Your task to perform on an android device: Clear all items from cart on walmart. Add usb-a to usb-b to the cart on walmart, then select checkout. Image 0: 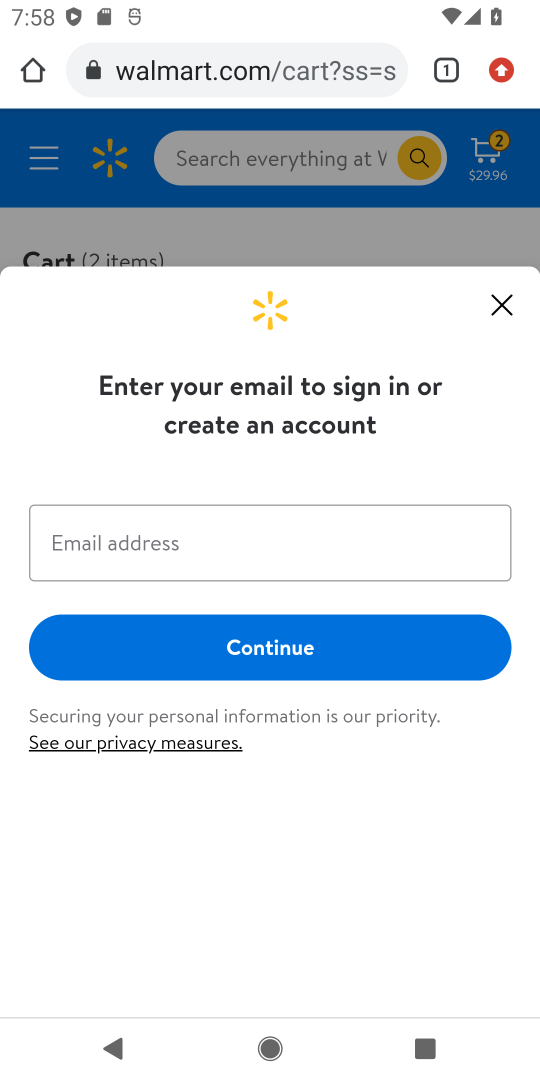
Step 0: press home button
Your task to perform on an android device: Clear all items from cart on walmart. Add usb-a to usb-b to the cart on walmart, then select checkout. Image 1: 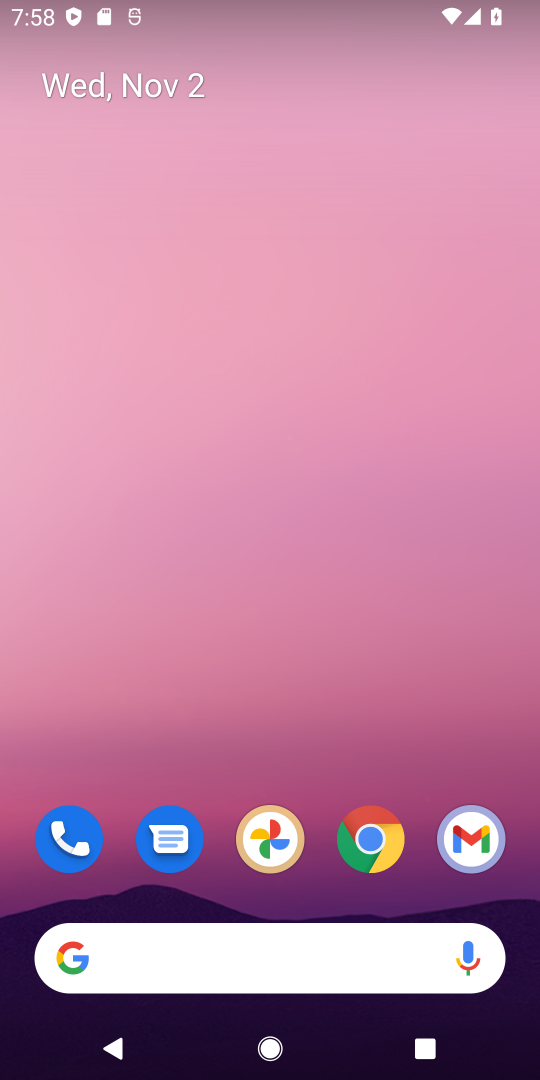
Step 1: click (370, 843)
Your task to perform on an android device: Clear all items from cart on walmart. Add usb-a to usb-b to the cart on walmart, then select checkout. Image 2: 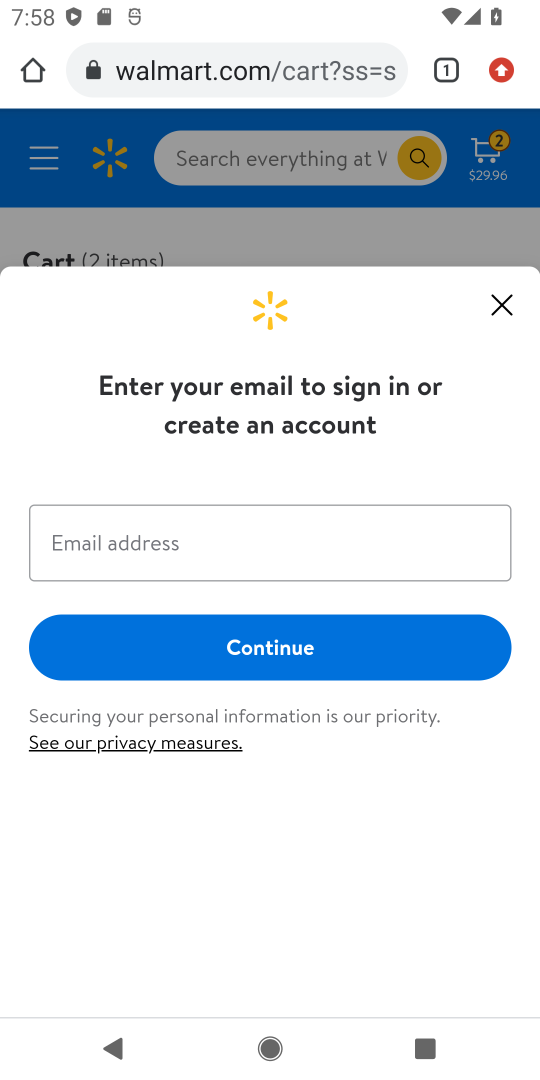
Step 2: click (300, 69)
Your task to perform on an android device: Clear all items from cart on walmart. Add usb-a to usb-b to the cart on walmart, then select checkout. Image 3: 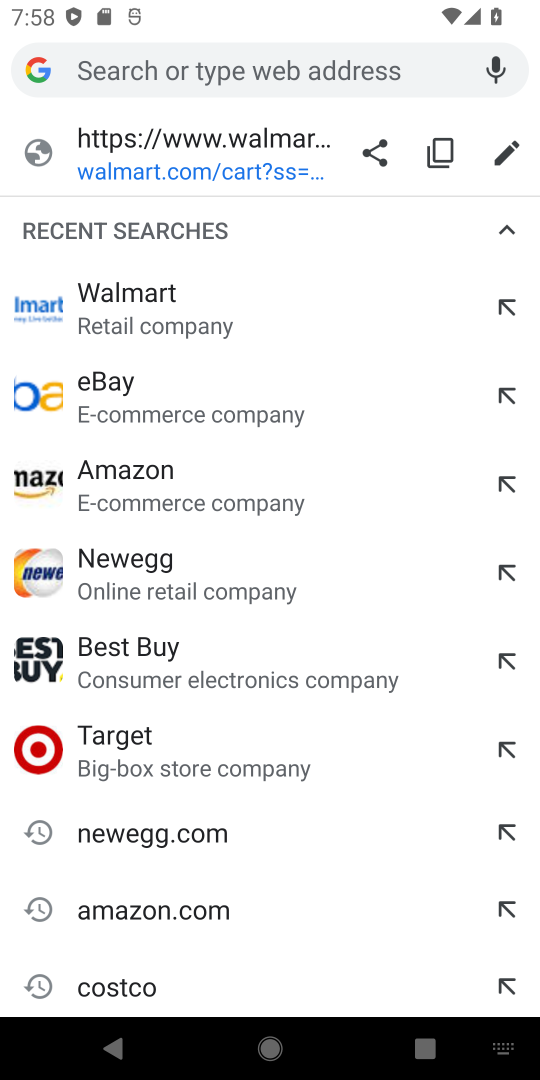
Step 3: type "walmart"
Your task to perform on an android device: Clear all items from cart on walmart. Add usb-a to usb-b to the cart on walmart, then select checkout. Image 4: 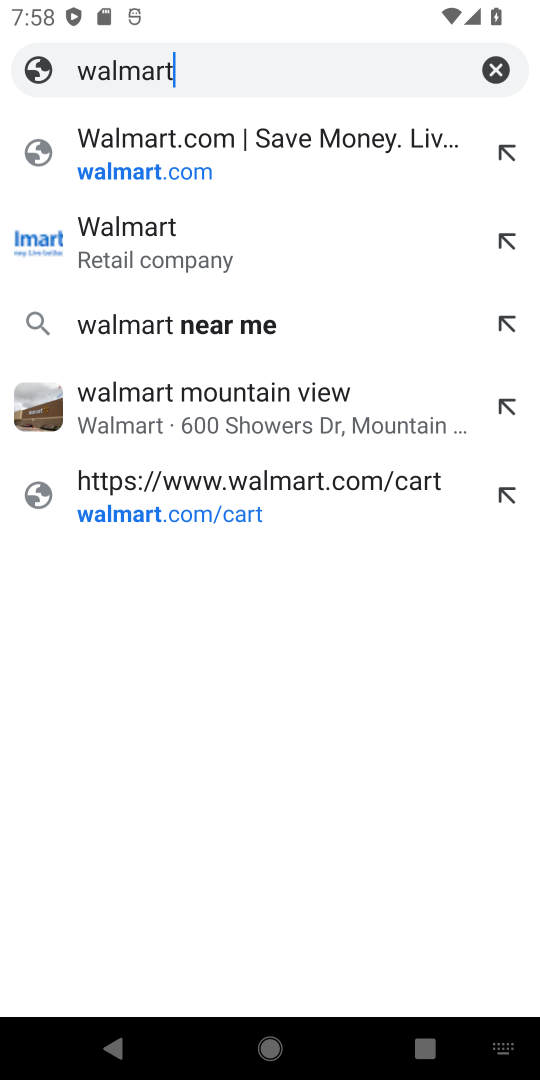
Step 4: click (175, 241)
Your task to perform on an android device: Clear all items from cart on walmart. Add usb-a to usb-b to the cart on walmart, then select checkout. Image 5: 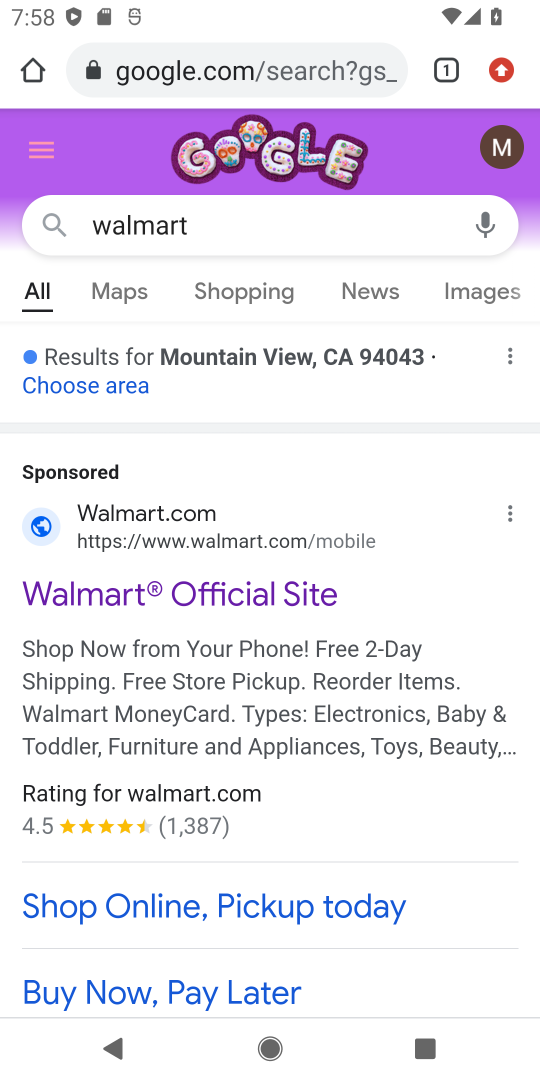
Step 5: drag from (272, 747) to (311, 375)
Your task to perform on an android device: Clear all items from cart on walmart. Add usb-a to usb-b to the cart on walmart, then select checkout. Image 6: 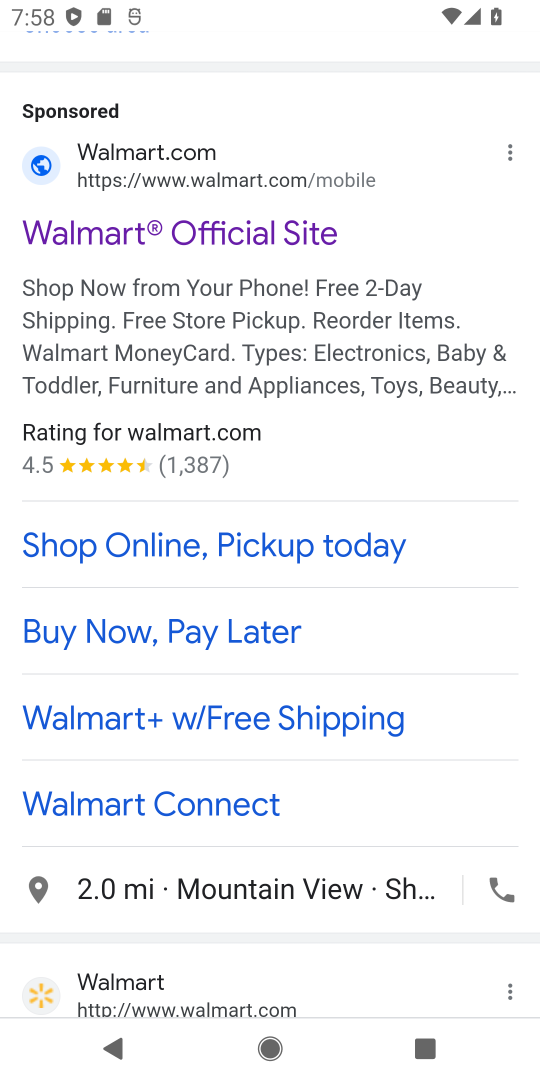
Step 6: drag from (334, 959) to (319, 496)
Your task to perform on an android device: Clear all items from cart on walmart. Add usb-a to usb-b to the cart on walmart, then select checkout. Image 7: 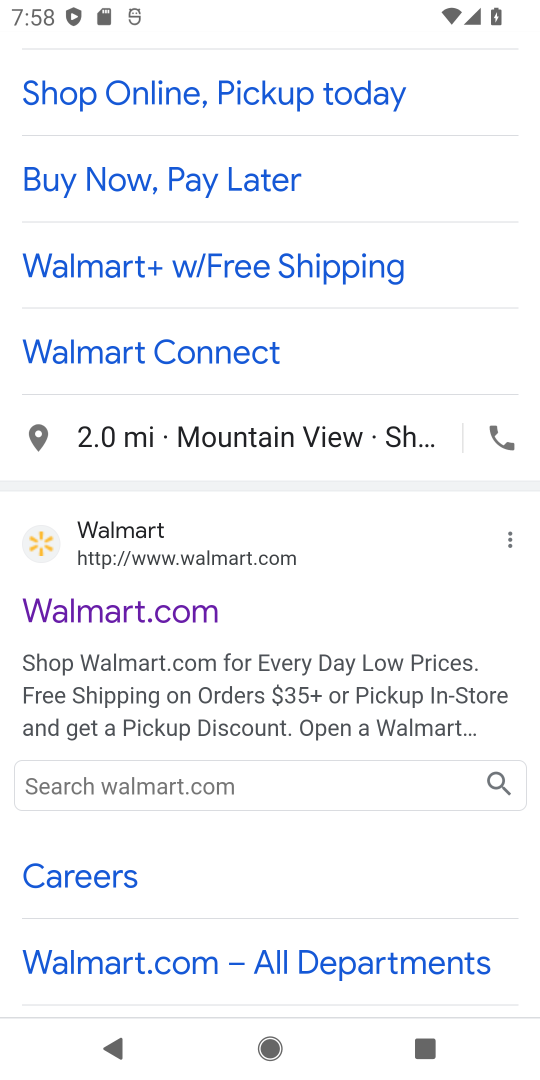
Step 7: click (238, 606)
Your task to perform on an android device: Clear all items from cart on walmart. Add usb-a to usb-b to the cart on walmart, then select checkout. Image 8: 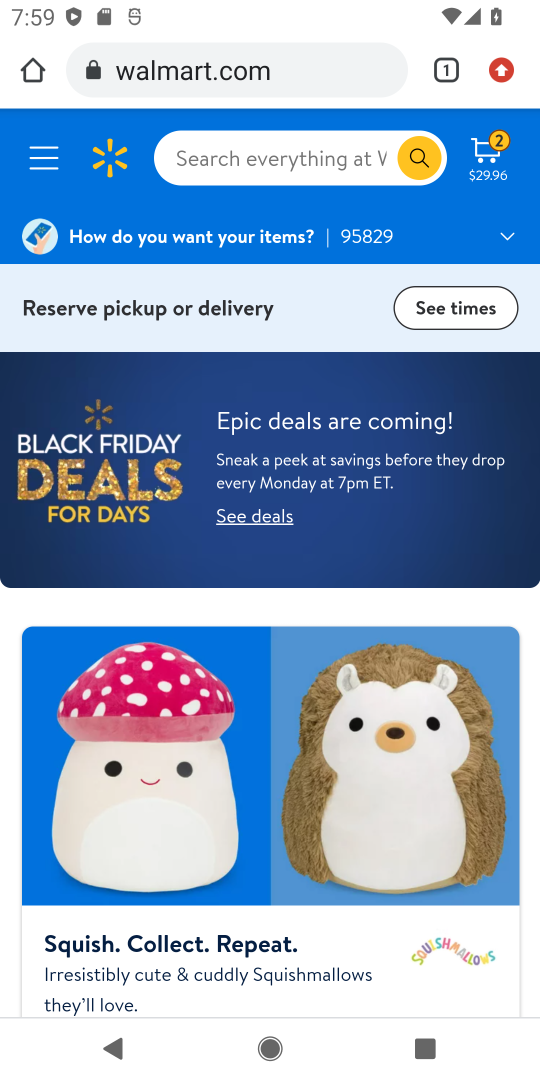
Step 8: click (492, 144)
Your task to perform on an android device: Clear all items from cart on walmart. Add usb-a to usb-b to the cart on walmart, then select checkout. Image 9: 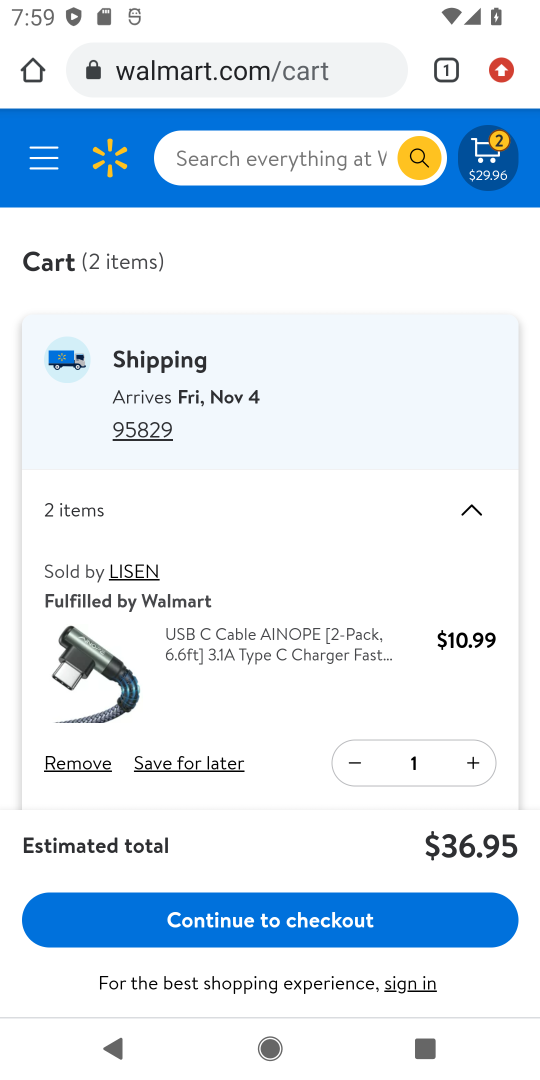
Step 9: click (93, 760)
Your task to perform on an android device: Clear all items from cart on walmart. Add usb-a to usb-b to the cart on walmart, then select checkout. Image 10: 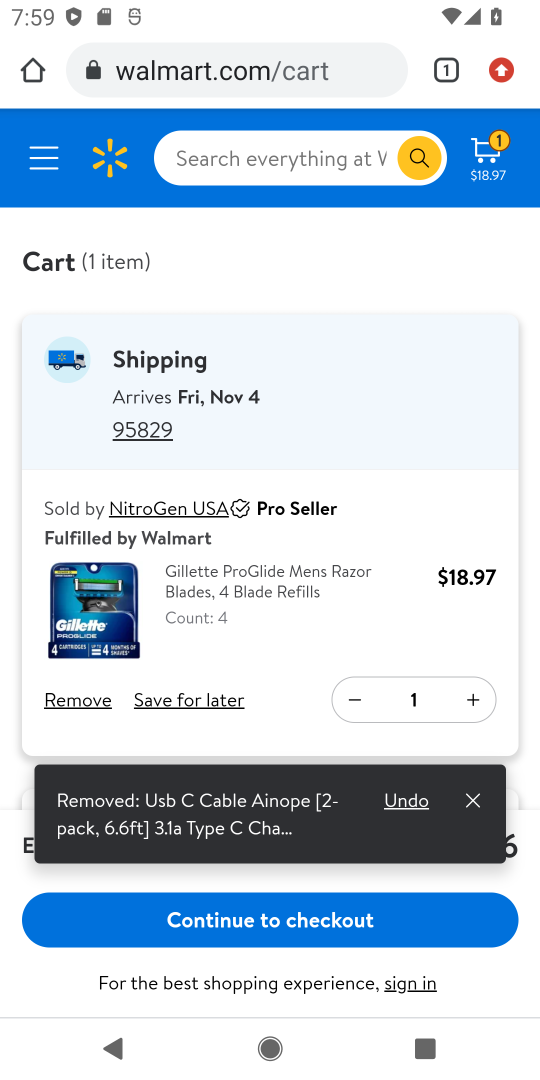
Step 10: click (76, 704)
Your task to perform on an android device: Clear all items from cart on walmart. Add usb-a to usb-b to the cart on walmart, then select checkout. Image 11: 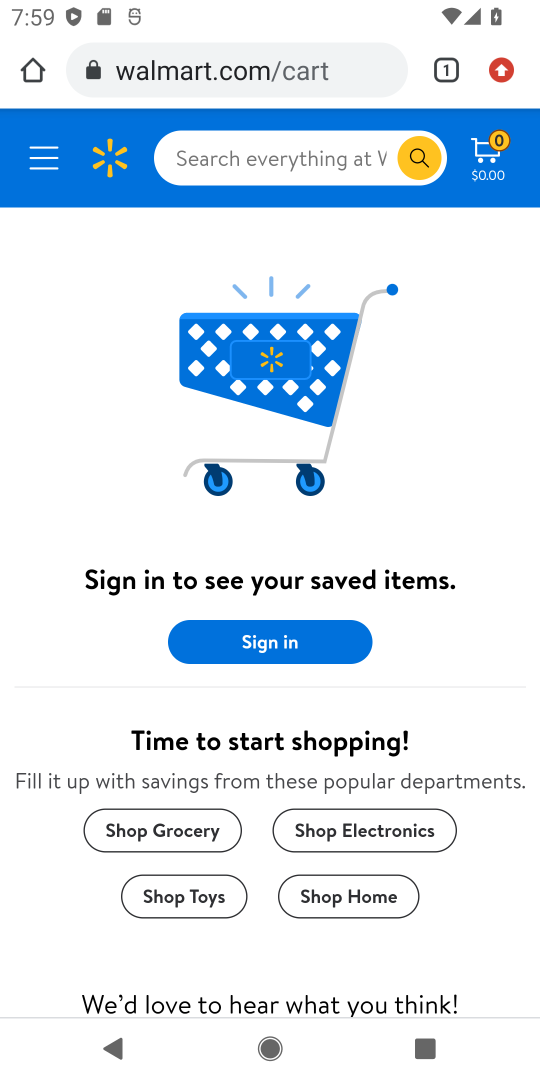
Step 11: click (249, 158)
Your task to perform on an android device: Clear all items from cart on walmart. Add usb-a to usb-b to the cart on walmart, then select checkout. Image 12: 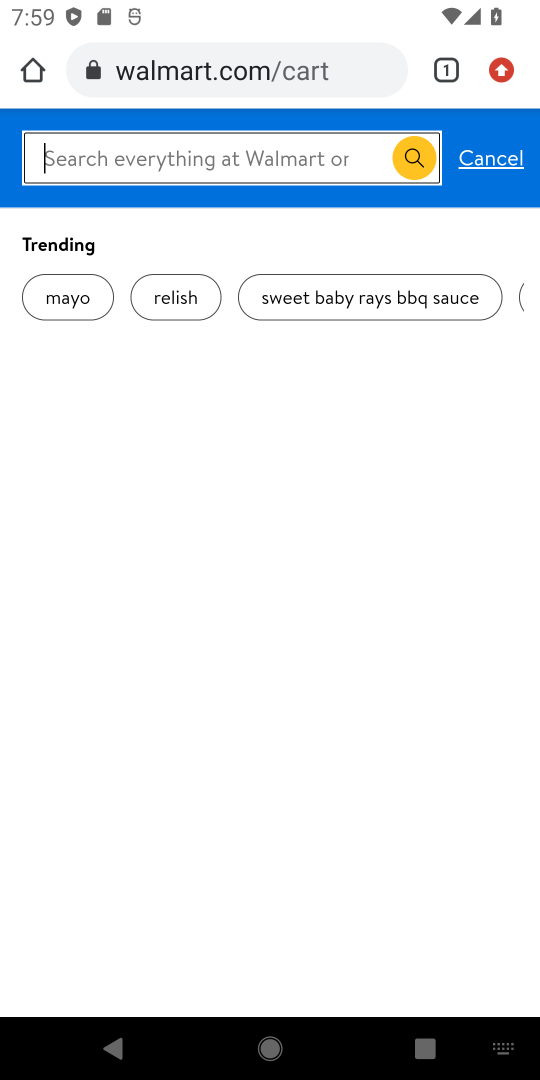
Step 12: type "usb-a to usb-b"
Your task to perform on an android device: Clear all items from cart on walmart. Add usb-a to usb-b to the cart on walmart, then select checkout. Image 13: 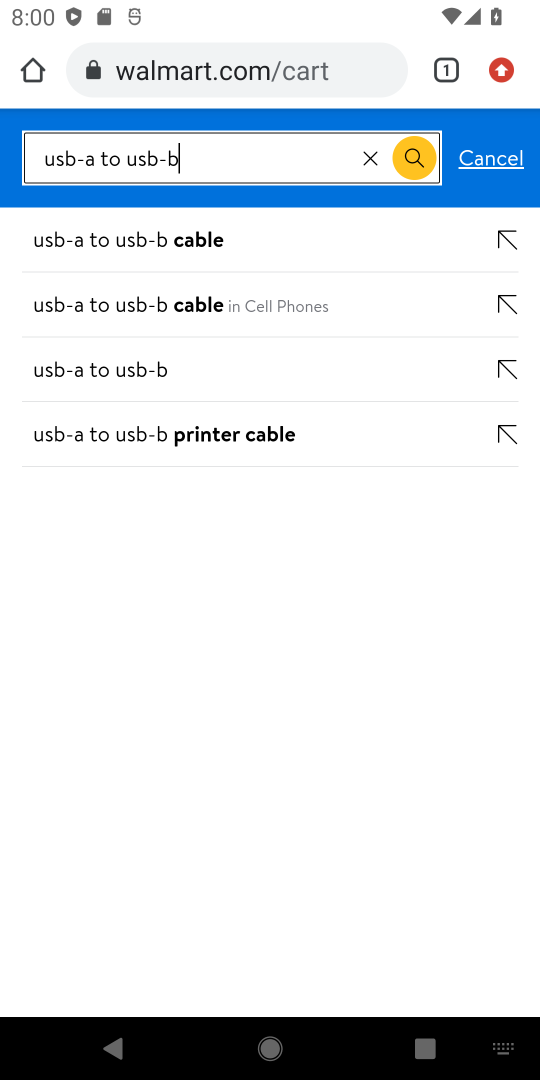
Step 13: click (412, 149)
Your task to perform on an android device: Clear all items from cart on walmart. Add usb-a to usb-b to the cart on walmart, then select checkout. Image 14: 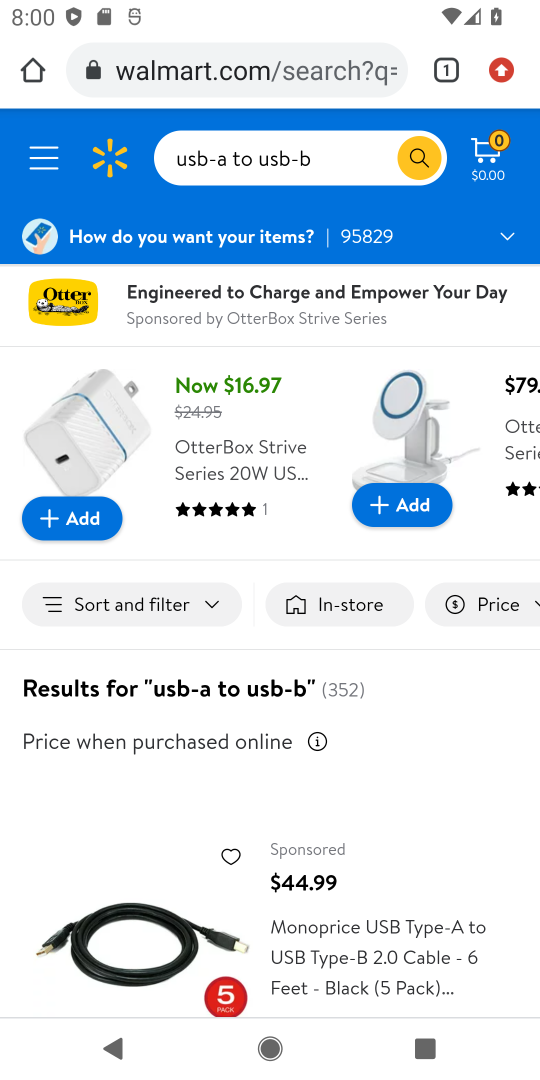
Step 14: drag from (362, 959) to (392, 728)
Your task to perform on an android device: Clear all items from cart on walmart. Add usb-a to usb-b to the cart on walmart, then select checkout. Image 15: 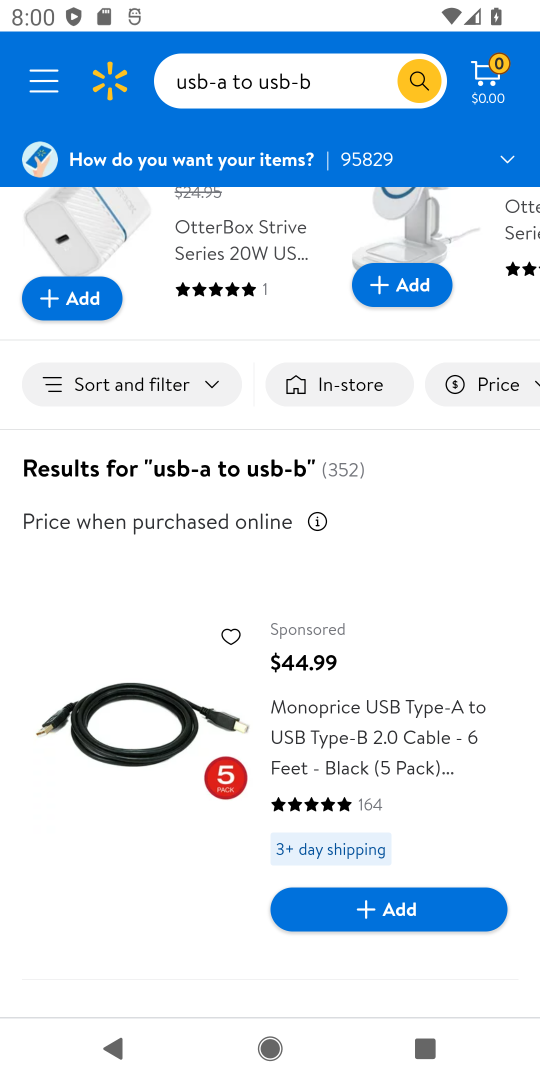
Step 15: click (392, 909)
Your task to perform on an android device: Clear all items from cart on walmart. Add usb-a to usb-b to the cart on walmart, then select checkout. Image 16: 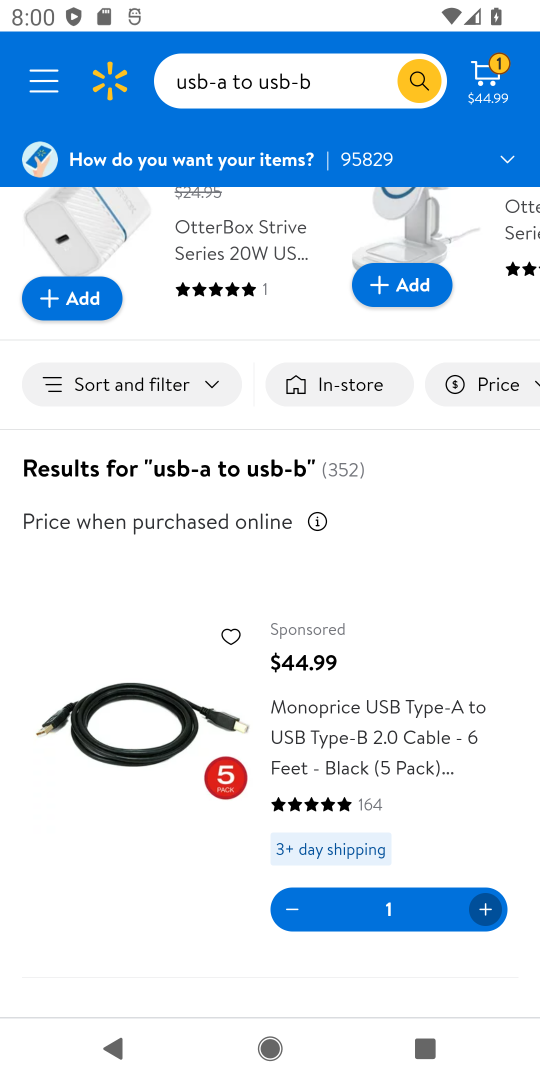
Step 16: click (489, 67)
Your task to perform on an android device: Clear all items from cart on walmart. Add usb-a to usb-b to the cart on walmart, then select checkout. Image 17: 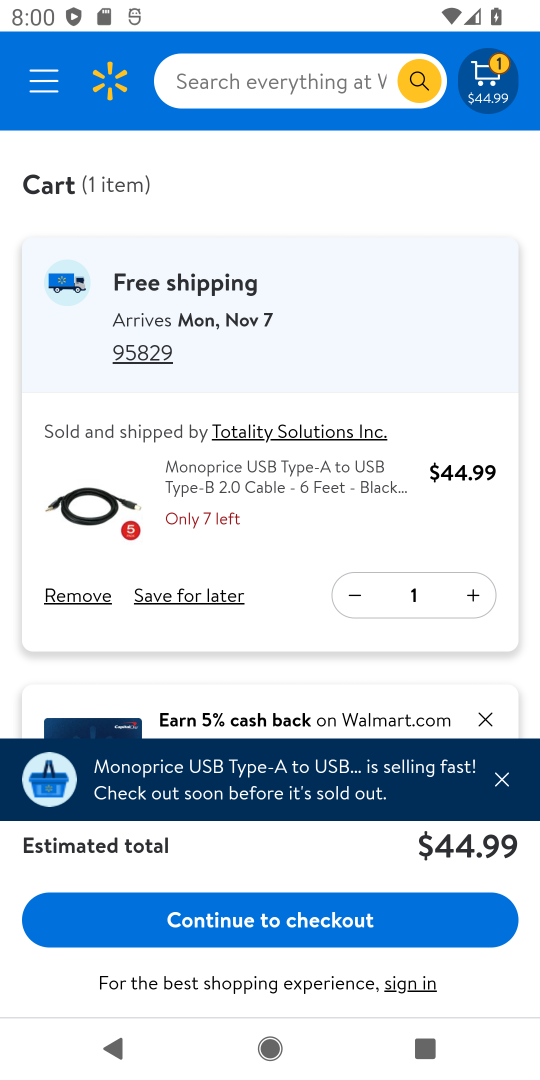
Step 17: click (294, 930)
Your task to perform on an android device: Clear all items from cart on walmart. Add usb-a to usb-b to the cart on walmart, then select checkout. Image 18: 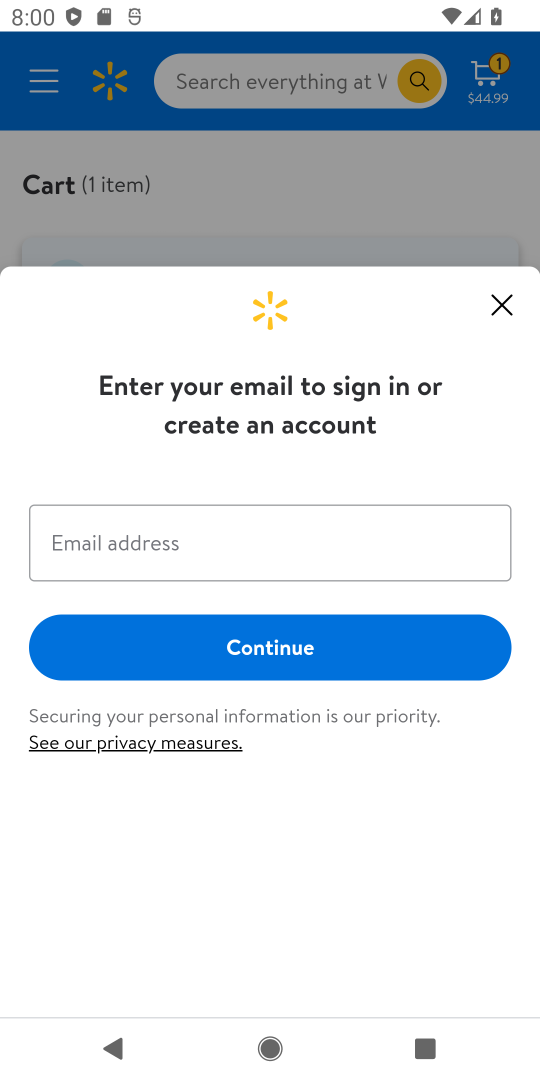
Step 18: task complete